Your task to perform on an android device: change the upload size in google photos Image 0: 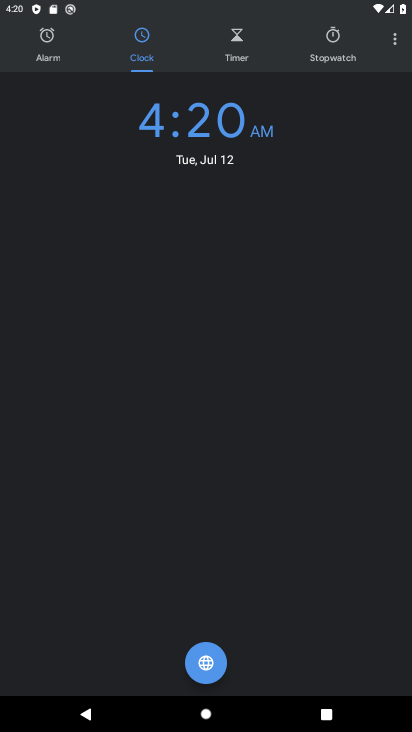
Step 0: press home button
Your task to perform on an android device: change the upload size in google photos Image 1: 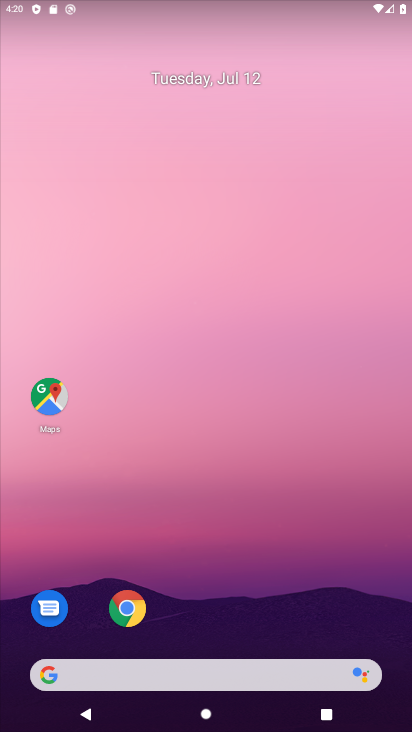
Step 1: drag from (220, 617) to (225, 29)
Your task to perform on an android device: change the upload size in google photos Image 2: 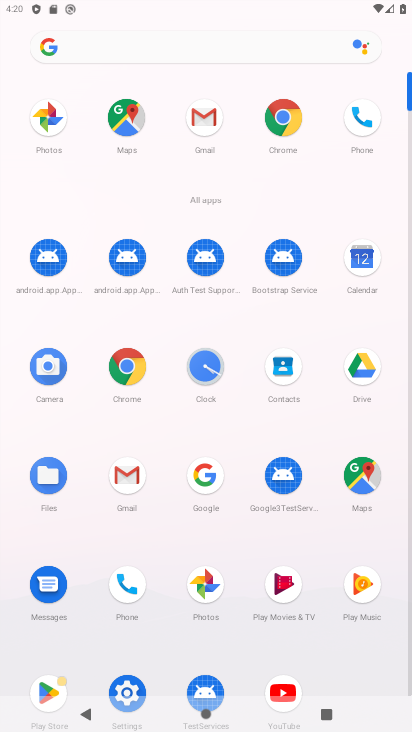
Step 2: click (43, 121)
Your task to perform on an android device: change the upload size in google photos Image 3: 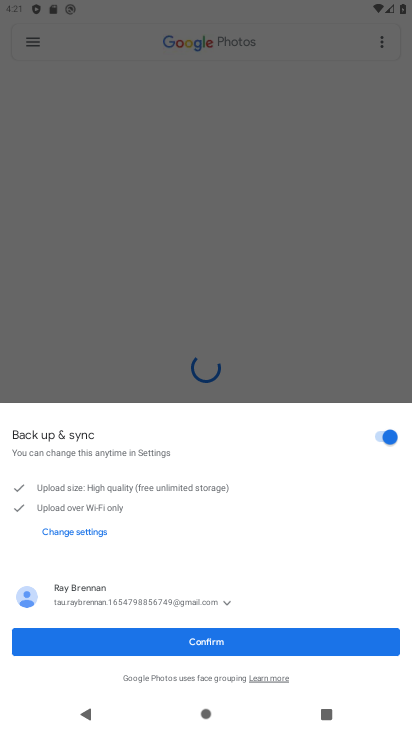
Step 3: click (300, 638)
Your task to perform on an android device: change the upload size in google photos Image 4: 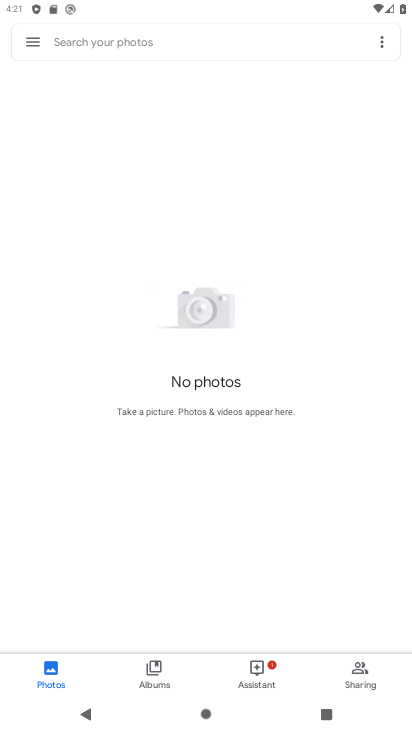
Step 4: click (28, 40)
Your task to perform on an android device: change the upload size in google photos Image 5: 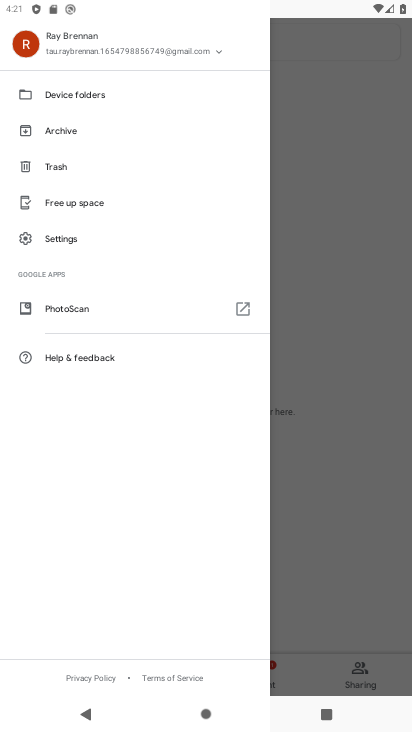
Step 5: click (100, 234)
Your task to perform on an android device: change the upload size in google photos Image 6: 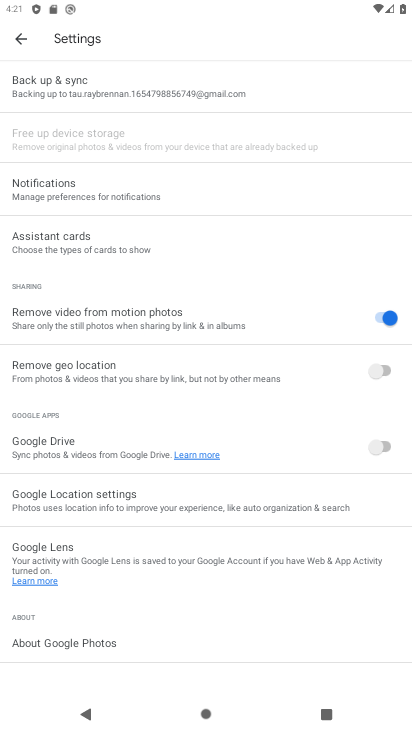
Step 6: click (94, 96)
Your task to perform on an android device: change the upload size in google photos Image 7: 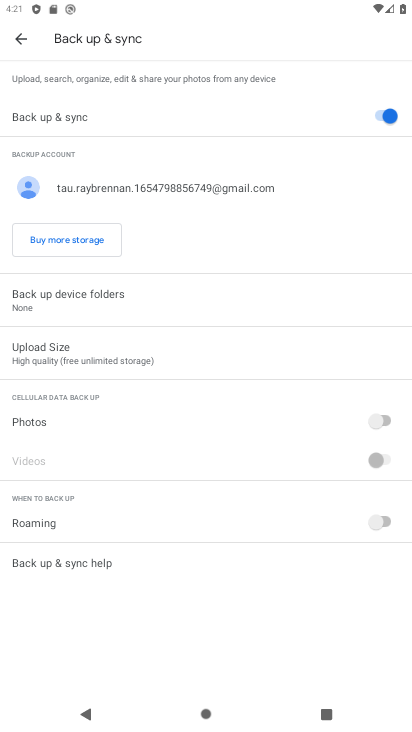
Step 7: click (158, 356)
Your task to perform on an android device: change the upload size in google photos Image 8: 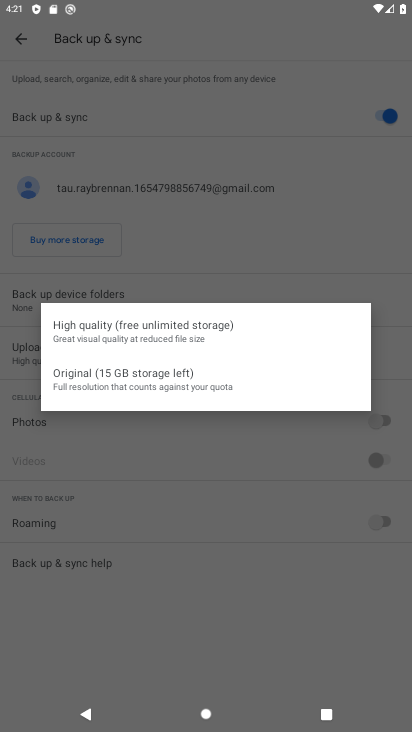
Step 8: click (173, 384)
Your task to perform on an android device: change the upload size in google photos Image 9: 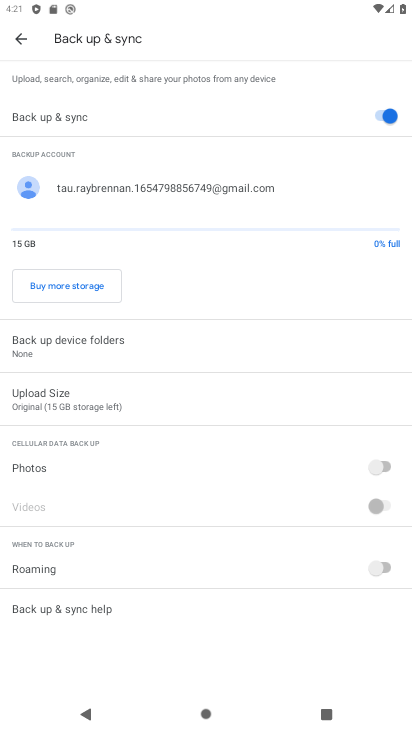
Step 9: task complete